Your task to perform on an android device: Open maps Image 0: 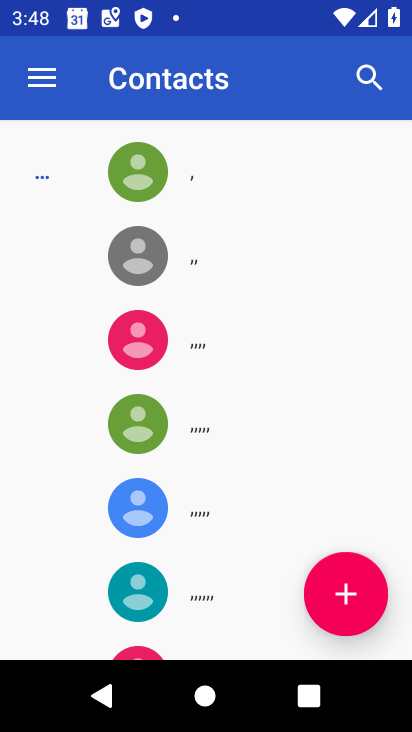
Step 0: press home button
Your task to perform on an android device: Open maps Image 1: 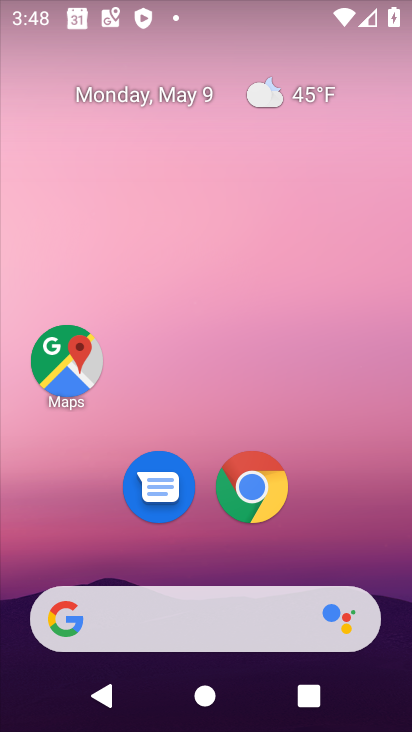
Step 1: click (83, 352)
Your task to perform on an android device: Open maps Image 2: 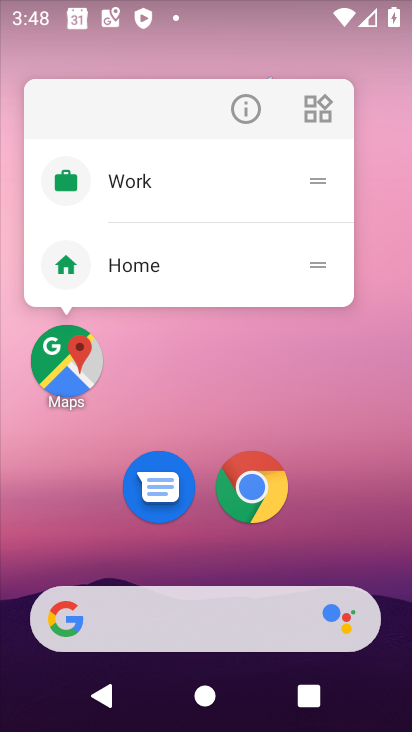
Step 2: click (70, 368)
Your task to perform on an android device: Open maps Image 3: 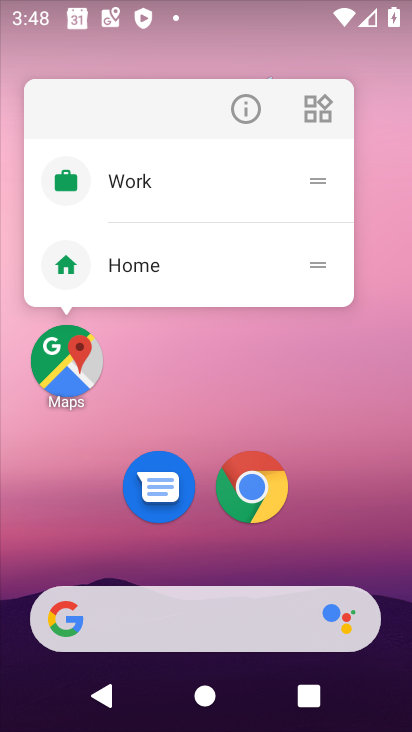
Step 3: click (63, 363)
Your task to perform on an android device: Open maps Image 4: 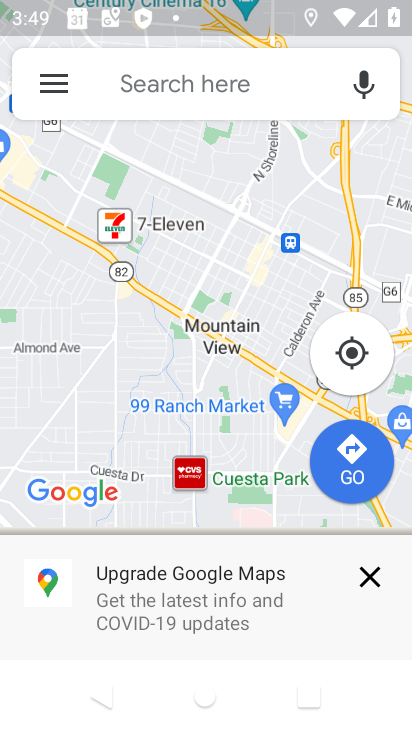
Step 4: task complete